Your task to perform on an android device: What's on my calendar today? Image 0: 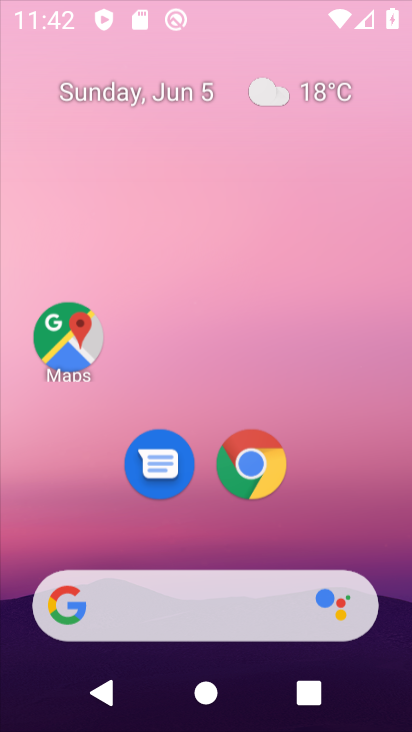
Step 0: drag from (355, 434) to (268, 50)
Your task to perform on an android device: What's on my calendar today? Image 1: 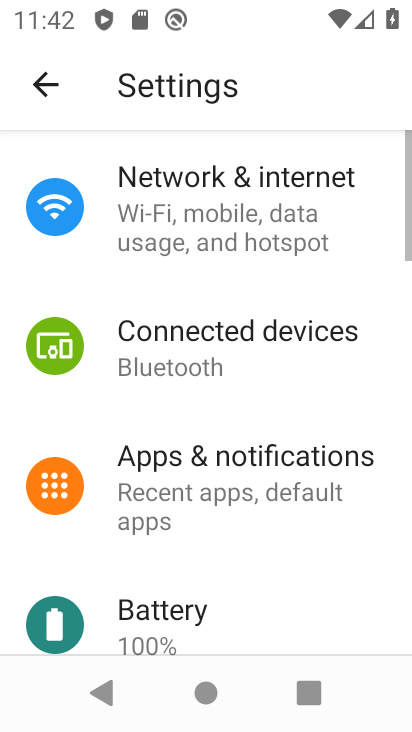
Step 1: press back button
Your task to perform on an android device: What's on my calendar today? Image 2: 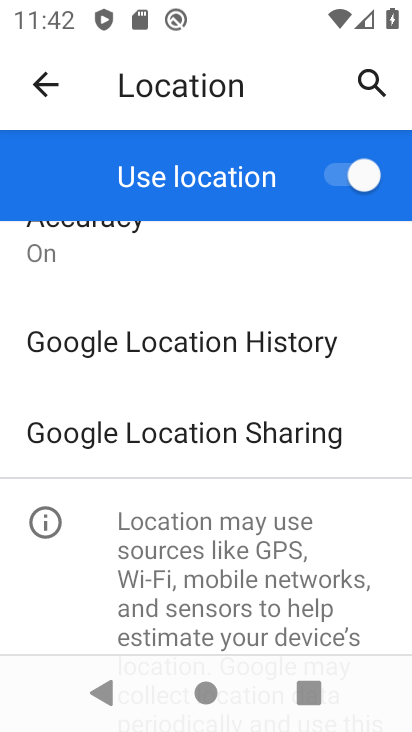
Step 2: press home button
Your task to perform on an android device: What's on my calendar today? Image 3: 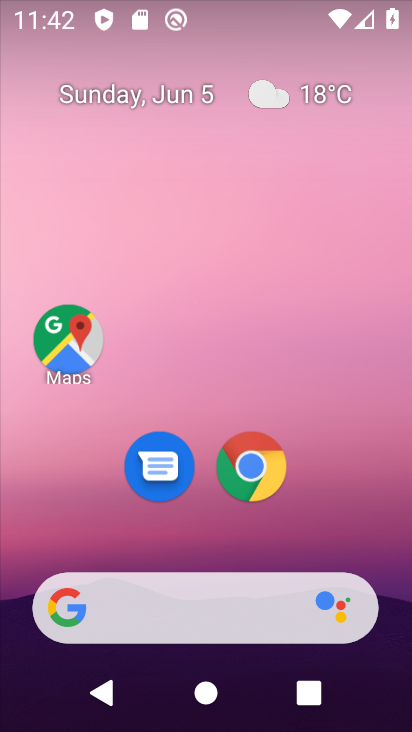
Step 3: drag from (339, 509) to (285, 58)
Your task to perform on an android device: What's on my calendar today? Image 4: 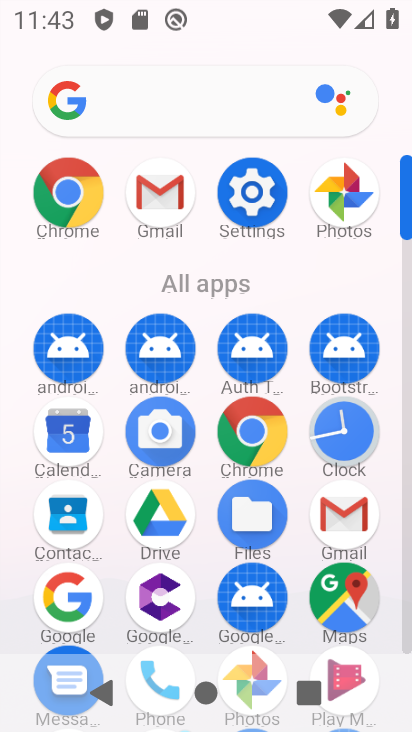
Step 4: drag from (12, 573) to (7, 265)
Your task to perform on an android device: What's on my calendar today? Image 5: 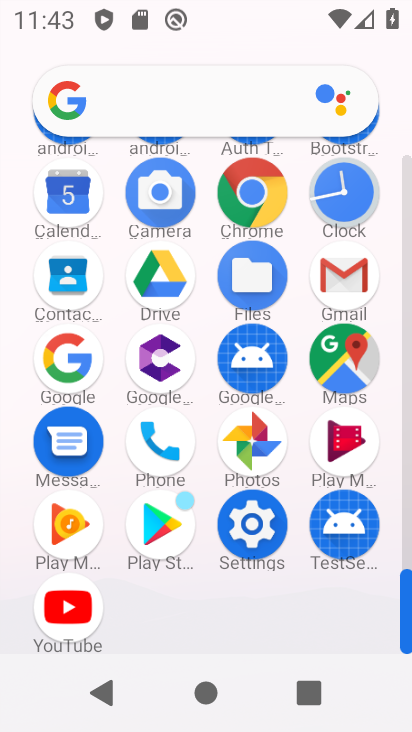
Step 5: drag from (25, 216) to (15, 513)
Your task to perform on an android device: What's on my calendar today? Image 6: 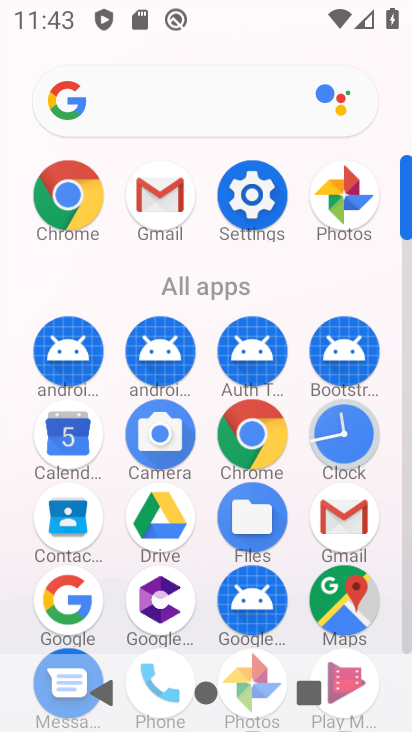
Step 6: drag from (15, 502) to (26, 157)
Your task to perform on an android device: What's on my calendar today? Image 7: 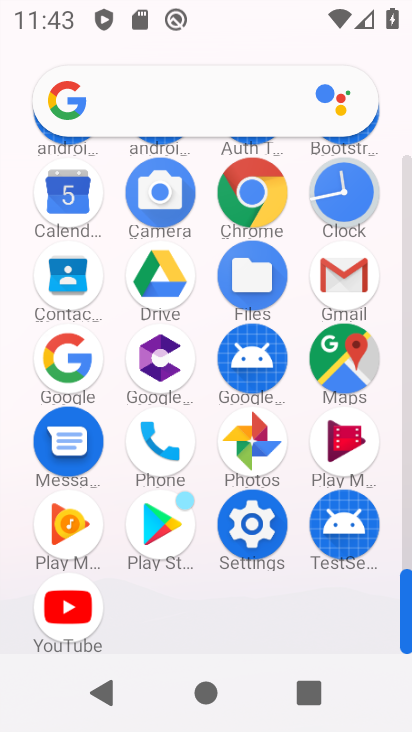
Step 7: click (65, 188)
Your task to perform on an android device: What's on my calendar today? Image 8: 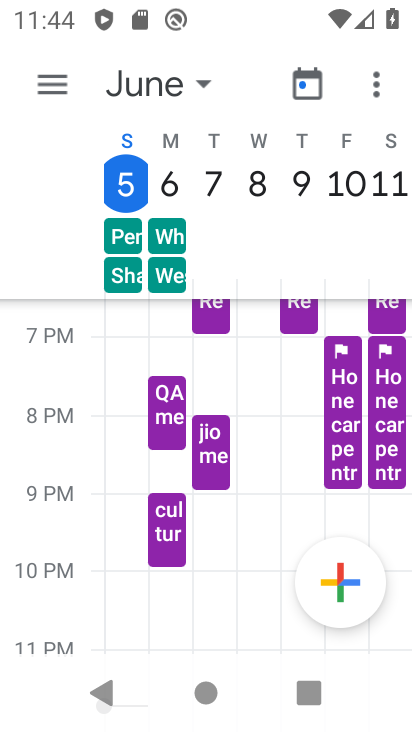
Step 8: click (317, 80)
Your task to perform on an android device: What's on my calendar today? Image 9: 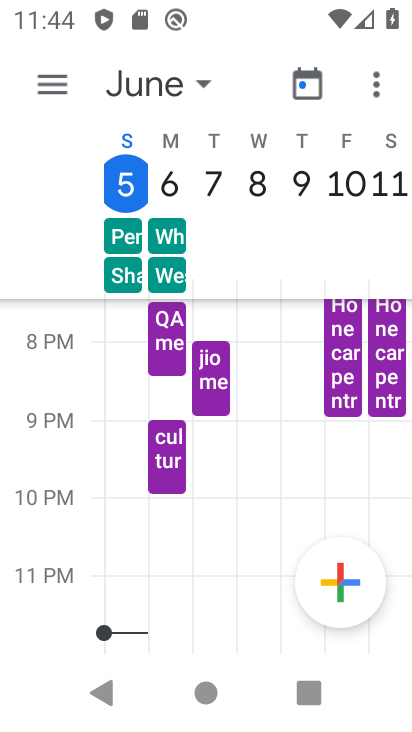
Step 9: click (126, 172)
Your task to perform on an android device: What's on my calendar today? Image 10: 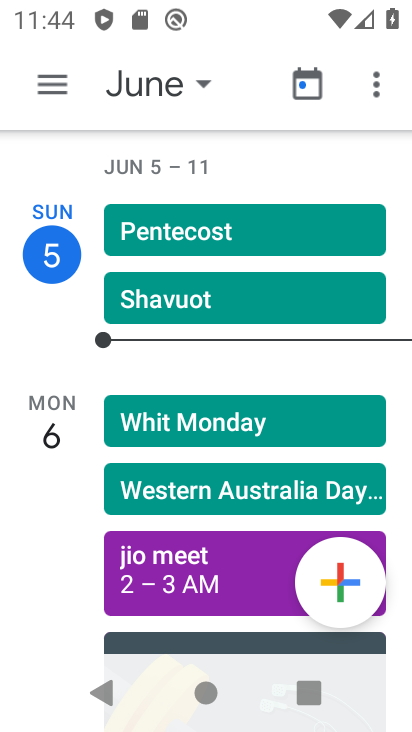
Step 10: task complete